Your task to perform on an android device: Search for vegetarian restaurants on Maps Image 0: 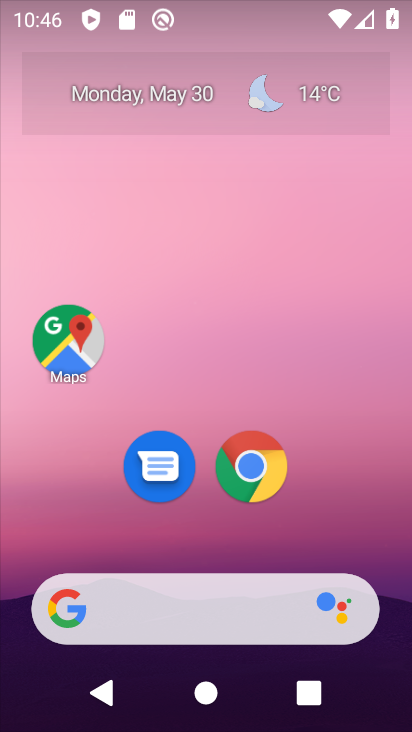
Step 0: click (77, 339)
Your task to perform on an android device: Search for vegetarian restaurants on Maps Image 1: 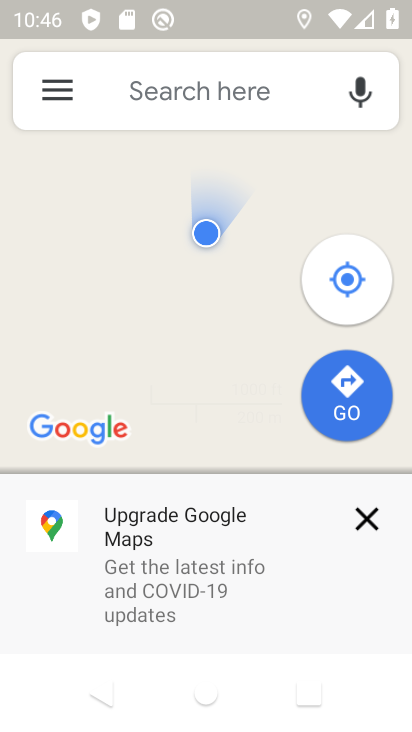
Step 1: click (241, 74)
Your task to perform on an android device: Search for vegetarian restaurants on Maps Image 2: 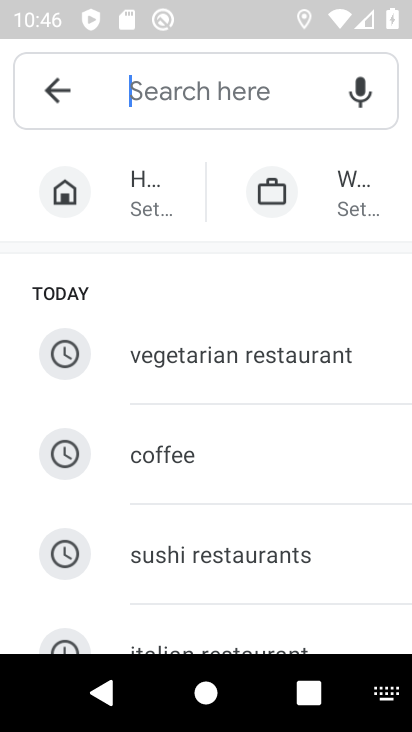
Step 2: click (205, 351)
Your task to perform on an android device: Search for vegetarian restaurants on Maps Image 3: 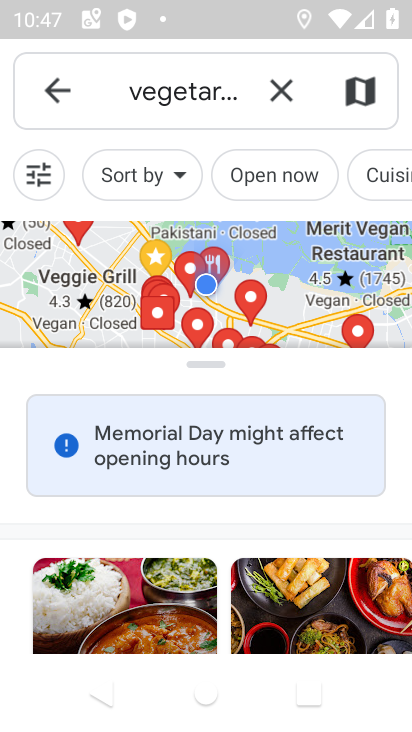
Step 3: drag from (275, 614) to (266, 146)
Your task to perform on an android device: Search for vegetarian restaurants on Maps Image 4: 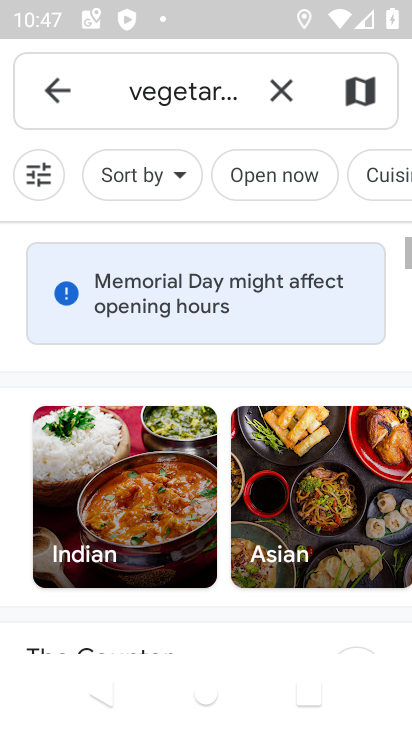
Step 4: click (266, 146)
Your task to perform on an android device: Search for vegetarian restaurants on Maps Image 5: 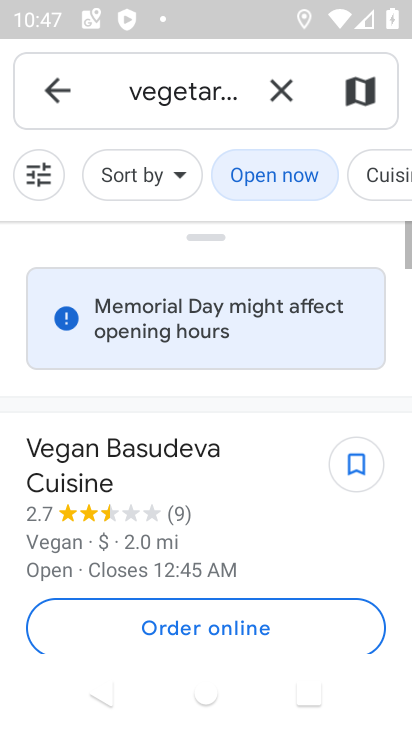
Step 5: task complete